Your task to perform on an android device: check storage Image 0: 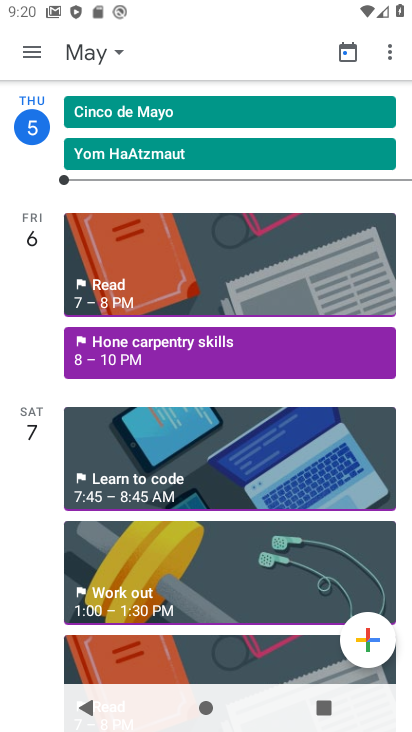
Step 0: press home button
Your task to perform on an android device: check storage Image 1: 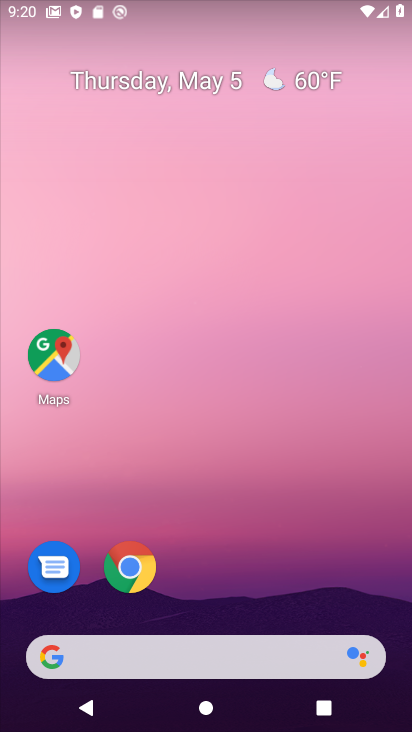
Step 1: drag from (208, 602) to (270, 73)
Your task to perform on an android device: check storage Image 2: 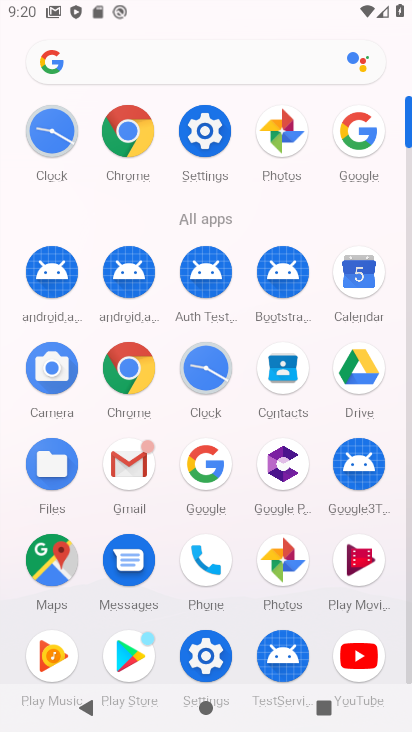
Step 2: click (228, 127)
Your task to perform on an android device: check storage Image 3: 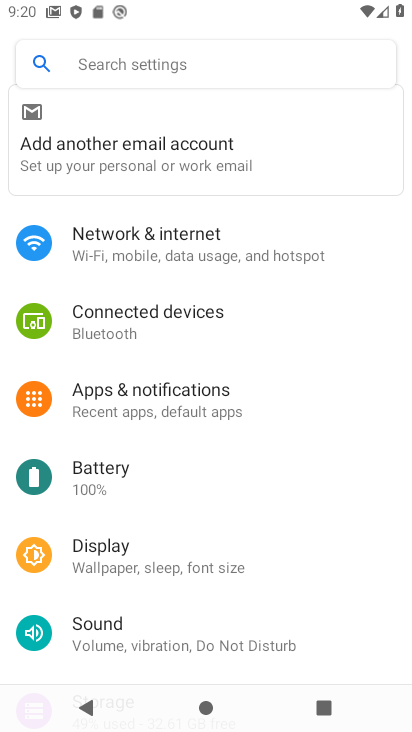
Step 3: drag from (178, 590) to (206, 353)
Your task to perform on an android device: check storage Image 4: 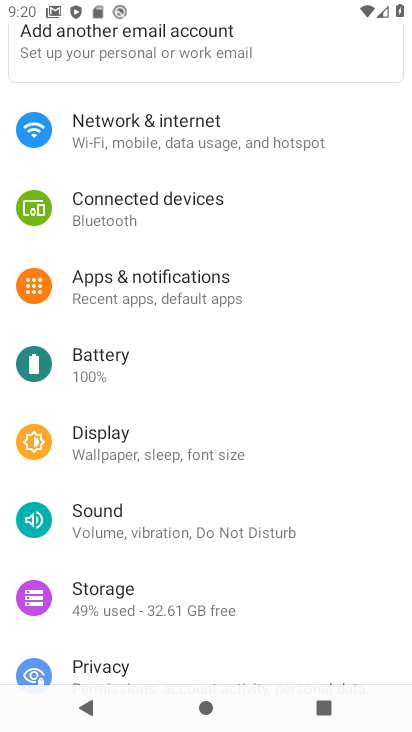
Step 4: click (127, 615)
Your task to perform on an android device: check storage Image 5: 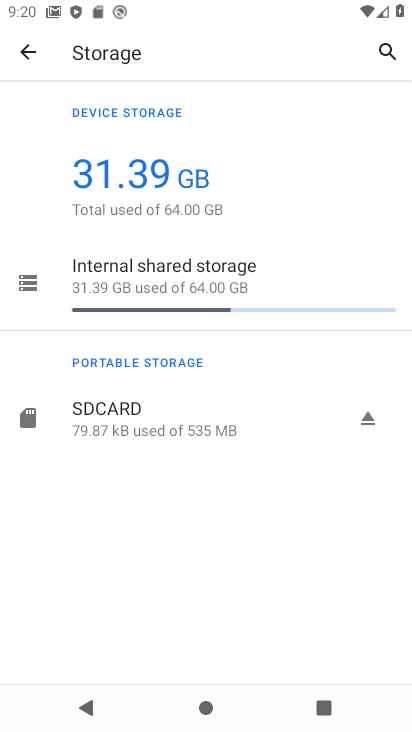
Step 5: click (186, 296)
Your task to perform on an android device: check storage Image 6: 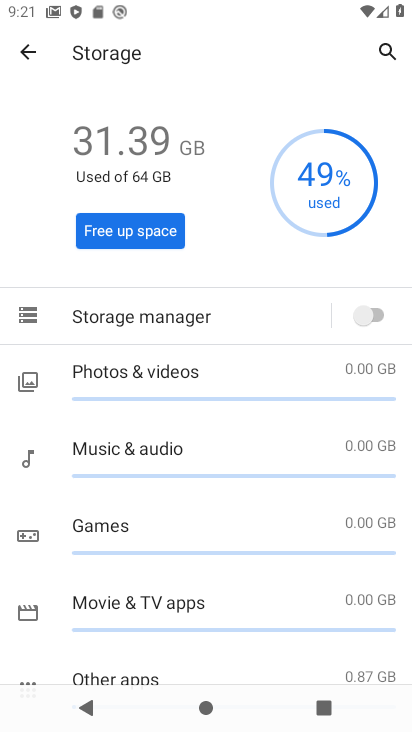
Step 6: task complete